Your task to perform on an android device: Do I have any events this weekend? Image 0: 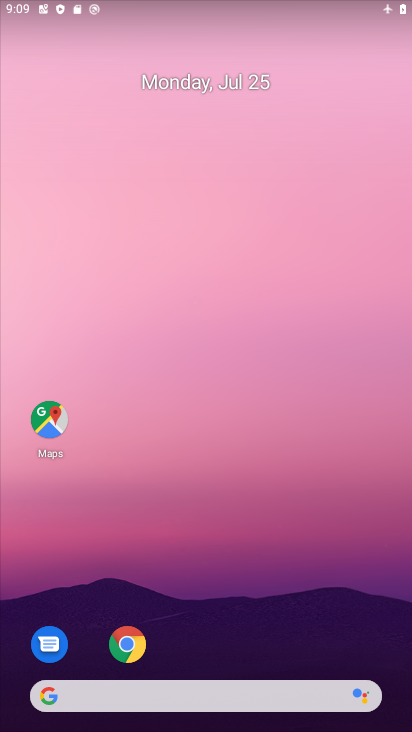
Step 0: drag from (224, 570) to (236, 141)
Your task to perform on an android device: Do I have any events this weekend? Image 1: 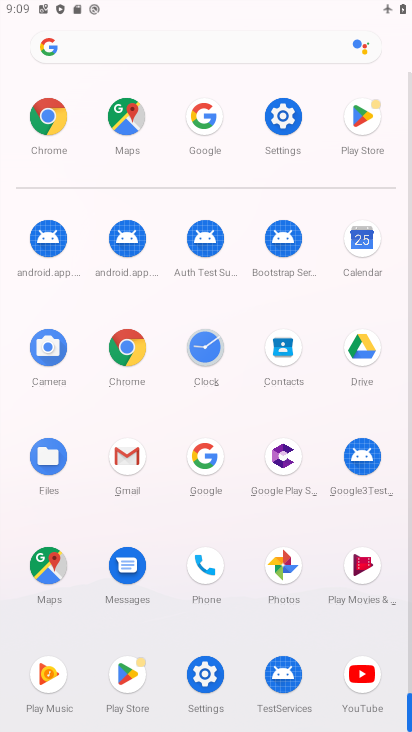
Step 1: click (371, 247)
Your task to perform on an android device: Do I have any events this weekend? Image 2: 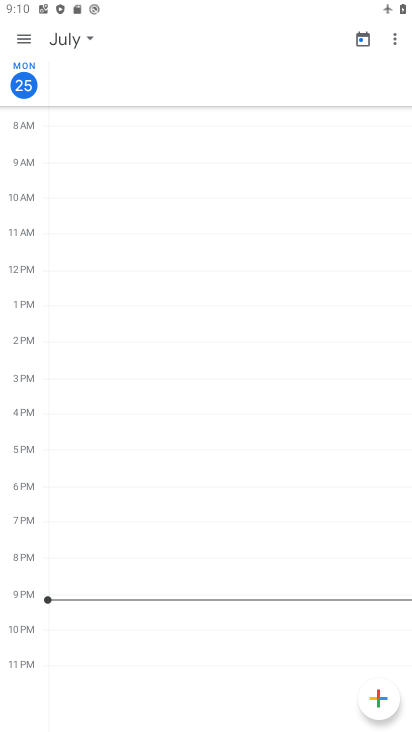
Step 2: click (76, 31)
Your task to perform on an android device: Do I have any events this weekend? Image 3: 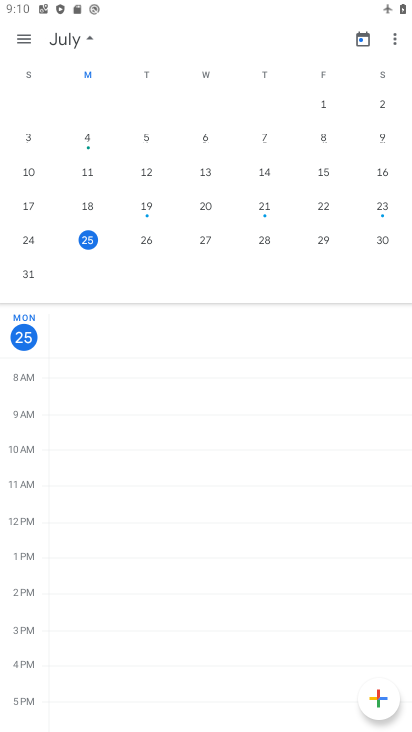
Step 3: click (75, 39)
Your task to perform on an android device: Do I have any events this weekend? Image 4: 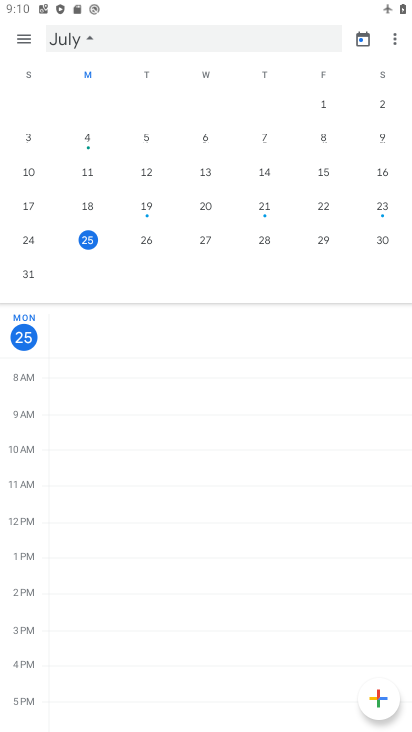
Step 4: click (24, 45)
Your task to perform on an android device: Do I have any events this weekend? Image 5: 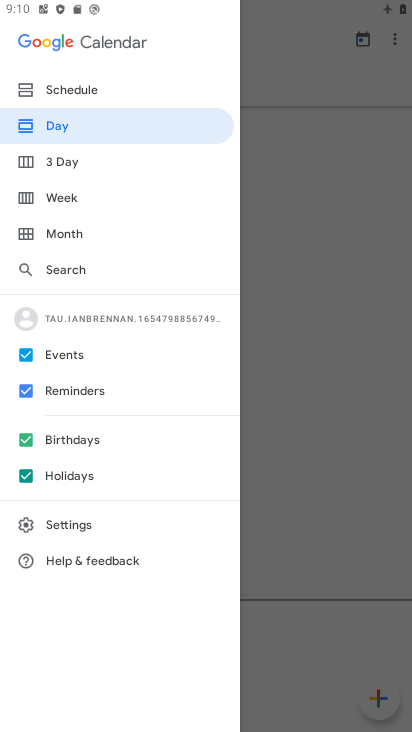
Step 5: click (83, 196)
Your task to perform on an android device: Do I have any events this weekend? Image 6: 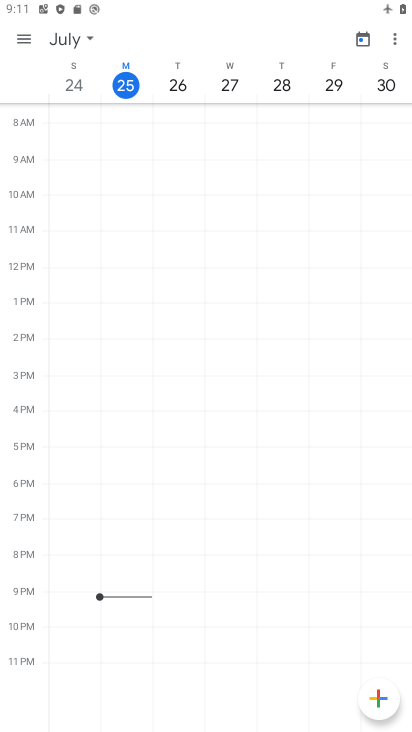
Step 6: task complete